Your task to perform on an android device: Go to Maps Image 0: 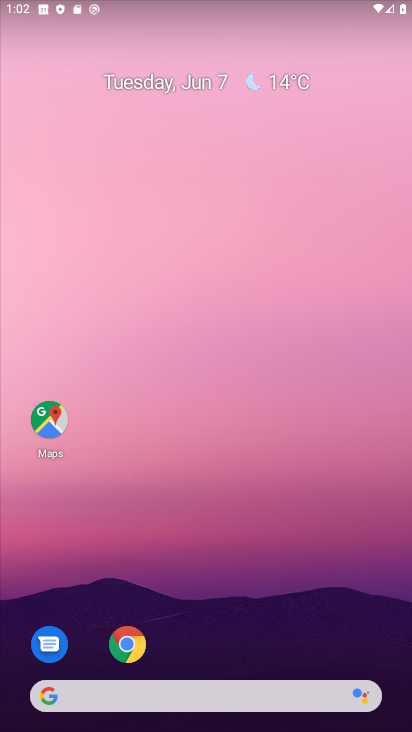
Step 0: click (42, 415)
Your task to perform on an android device: Go to Maps Image 1: 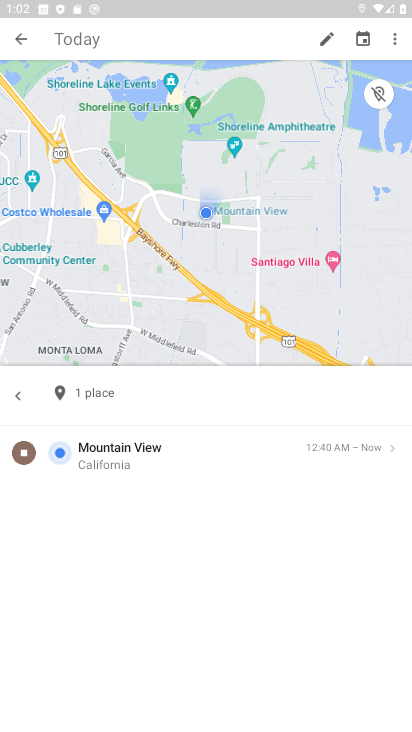
Step 1: click (10, 43)
Your task to perform on an android device: Go to Maps Image 2: 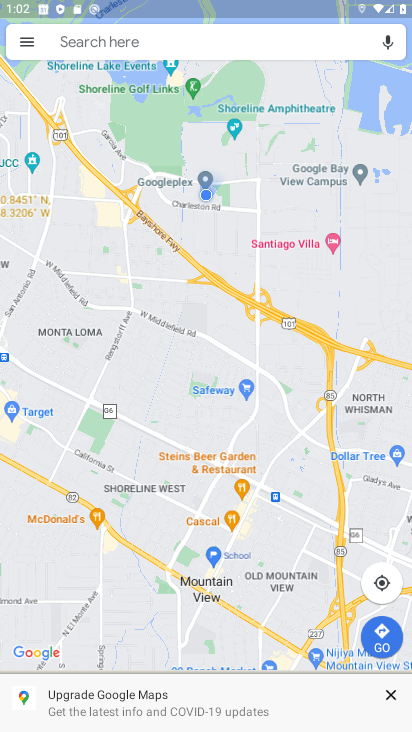
Step 2: task complete